Your task to perform on an android device: Open calendar and show me the second week of next month Image 0: 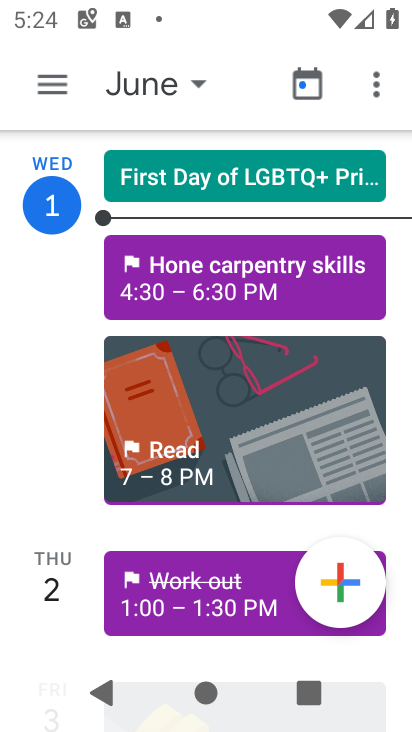
Step 0: press home button
Your task to perform on an android device: Open calendar and show me the second week of next month Image 1: 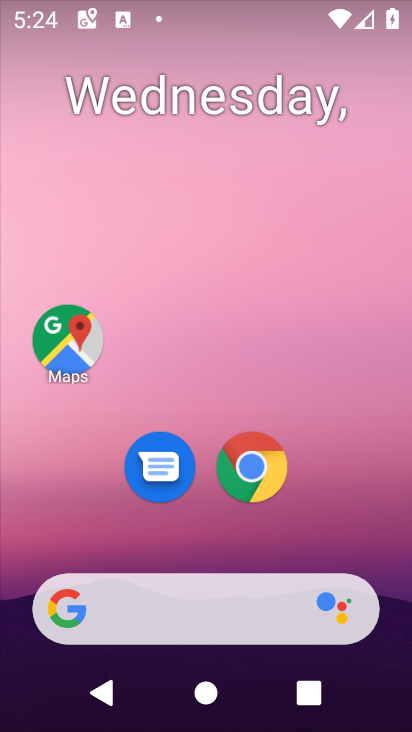
Step 1: drag from (365, 515) to (119, 4)
Your task to perform on an android device: Open calendar and show me the second week of next month Image 2: 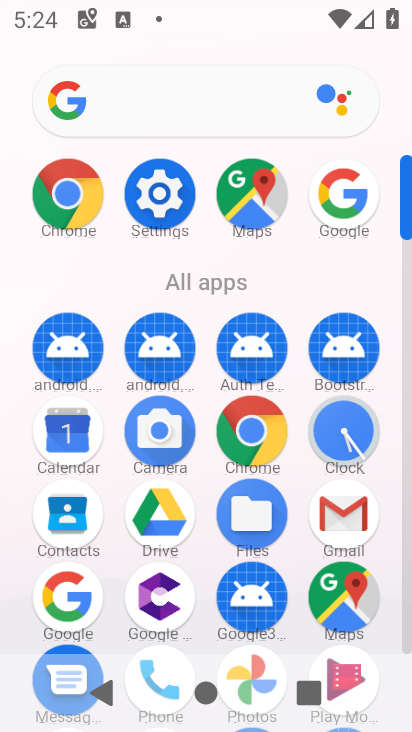
Step 2: click (82, 442)
Your task to perform on an android device: Open calendar and show me the second week of next month Image 3: 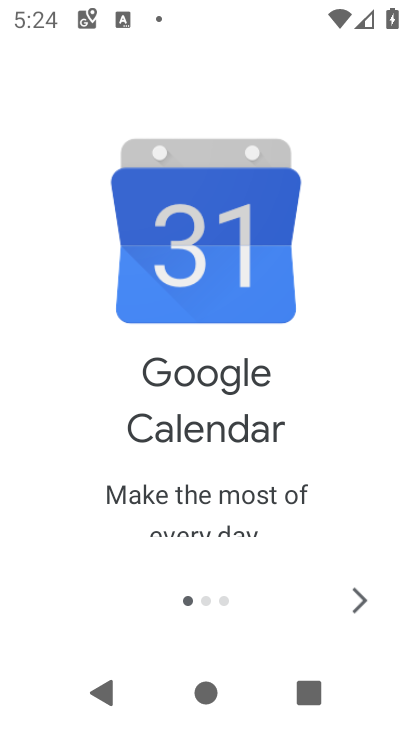
Step 3: click (362, 590)
Your task to perform on an android device: Open calendar and show me the second week of next month Image 4: 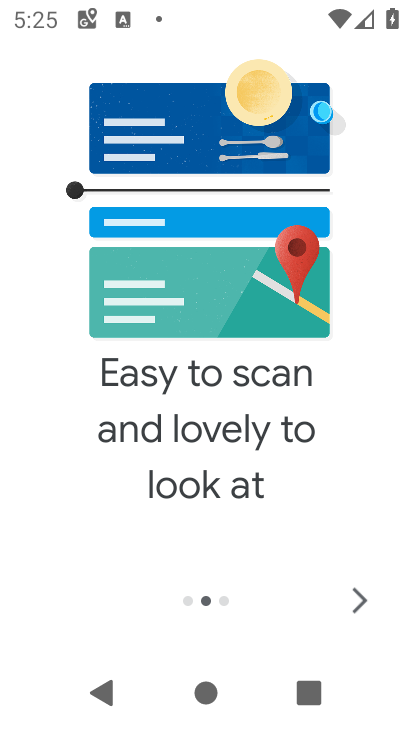
Step 4: click (370, 596)
Your task to perform on an android device: Open calendar and show me the second week of next month Image 5: 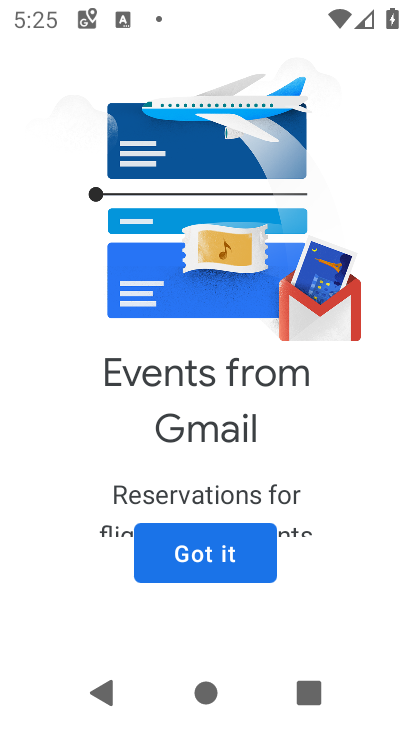
Step 5: click (197, 550)
Your task to perform on an android device: Open calendar and show me the second week of next month Image 6: 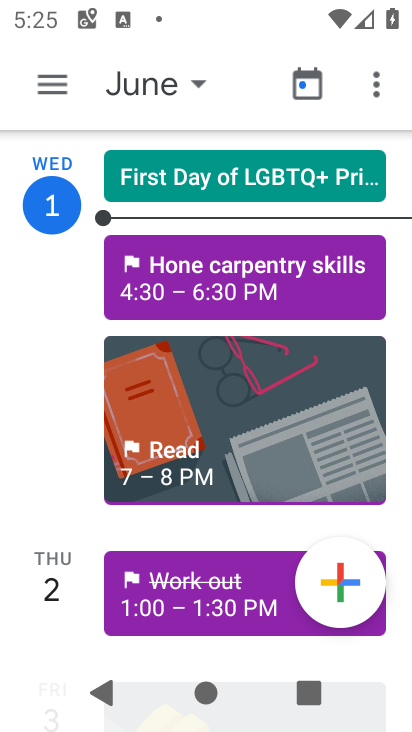
Step 6: click (177, 82)
Your task to perform on an android device: Open calendar and show me the second week of next month Image 7: 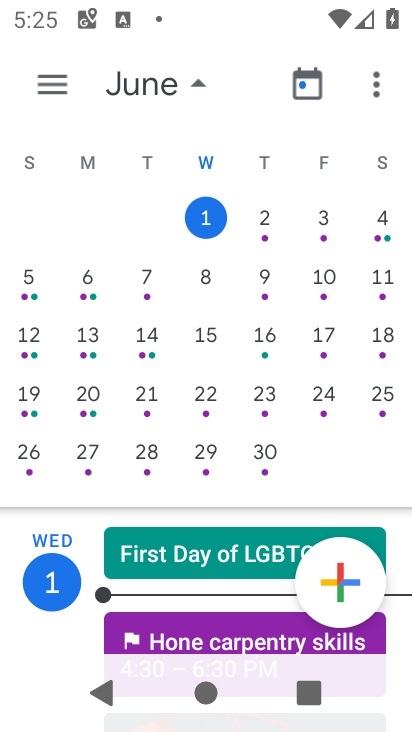
Step 7: click (51, 91)
Your task to perform on an android device: Open calendar and show me the second week of next month Image 8: 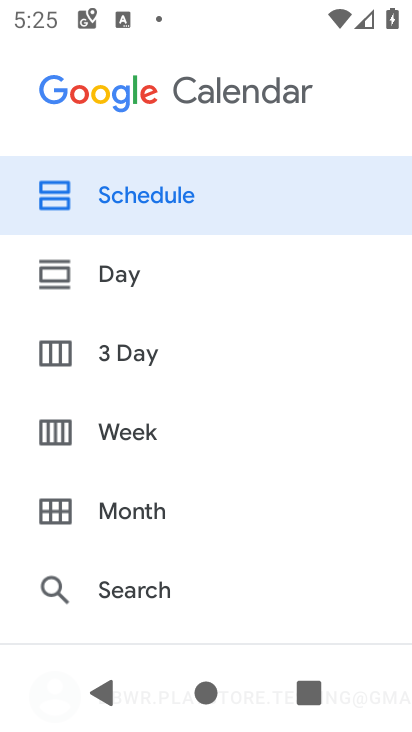
Step 8: click (143, 442)
Your task to perform on an android device: Open calendar and show me the second week of next month Image 9: 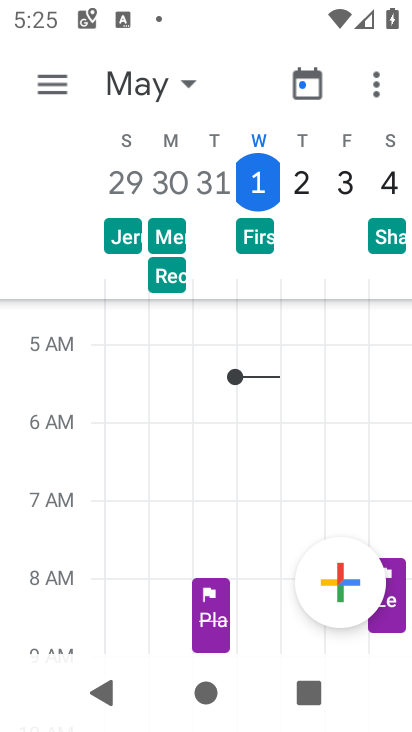
Step 9: click (177, 80)
Your task to perform on an android device: Open calendar and show me the second week of next month Image 10: 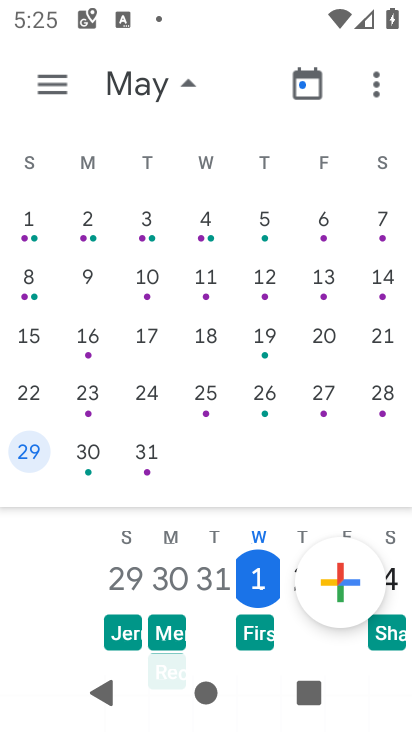
Step 10: drag from (309, 326) to (1, 364)
Your task to perform on an android device: Open calendar and show me the second week of next month Image 11: 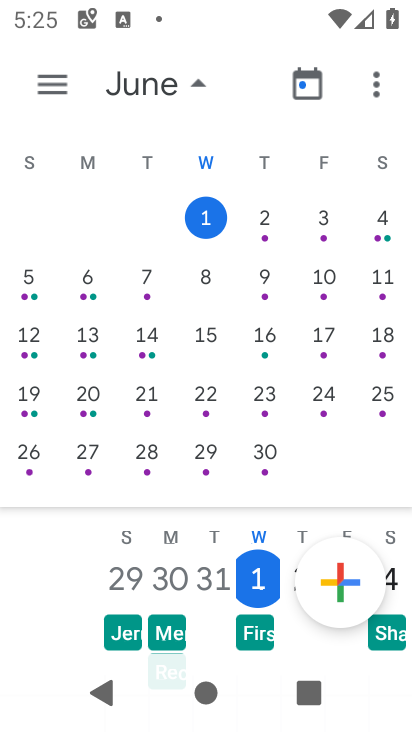
Step 11: click (34, 271)
Your task to perform on an android device: Open calendar and show me the second week of next month Image 12: 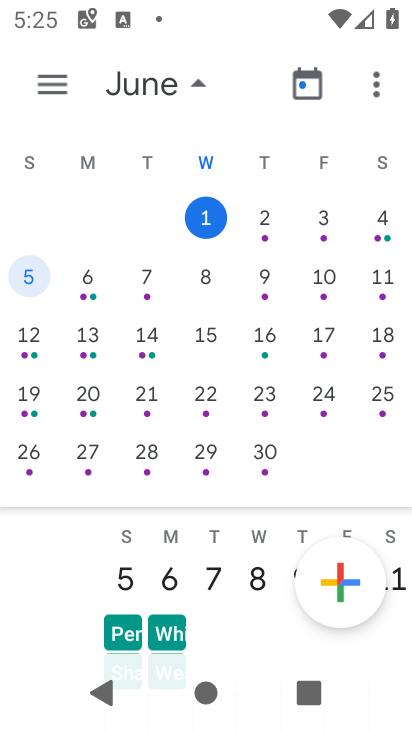
Step 12: task complete